Your task to perform on an android device: turn off smart reply in the gmail app Image 0: 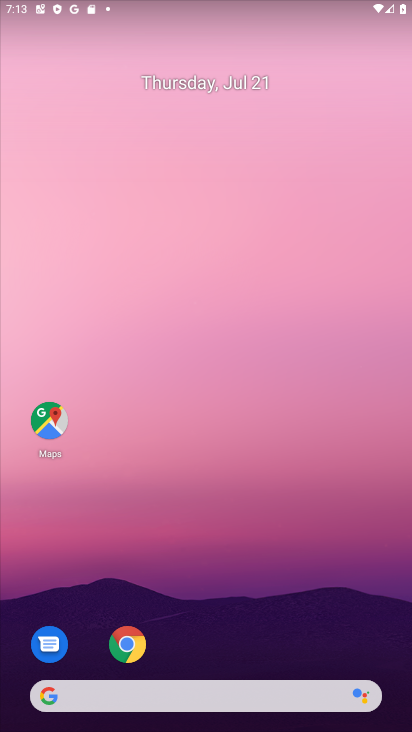
Step 0: drag from (251, 497) to (257, 197)
Your task to perform on an android device: turn off smart reply in the gmail app Image 1: 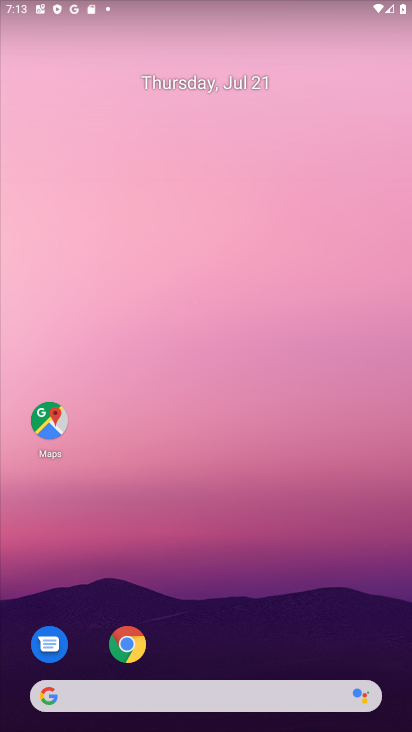
Step 1: drag from (234, 545) to (234, 117)
Your task to perform on an android device: turn off smart reply in the gmail app Image 2: 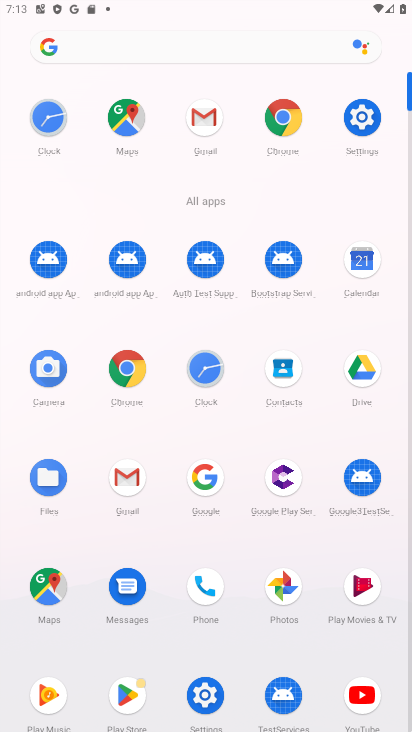
Step 2: click (126, 471)
Your task to perform on an android device: turn off smart reply in the gmail app Image 3: 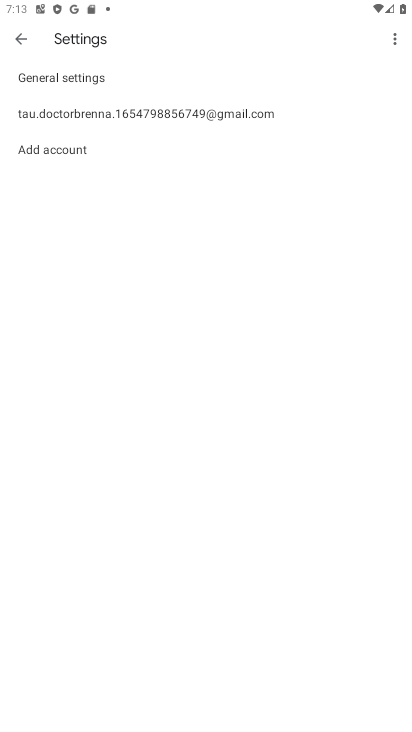
Step 3: click (79, 82)
Your task to perform on an android device: turn off smart reply in the gmail app Image 4: 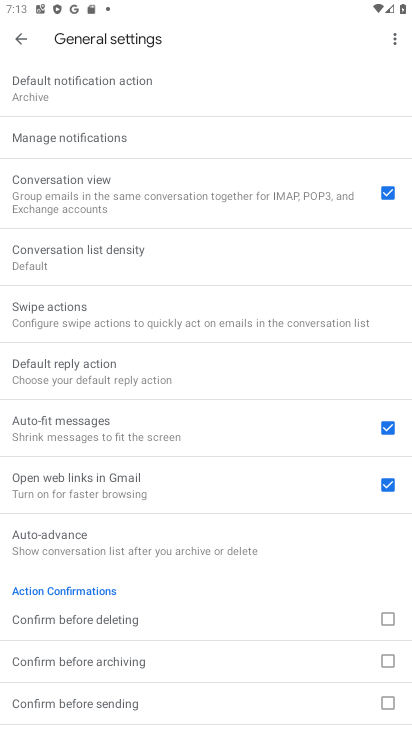
Step 4: task complete